Your task to perform on an android device: open app "Speedtest by Ookla" (install if not already installed) Image 0: 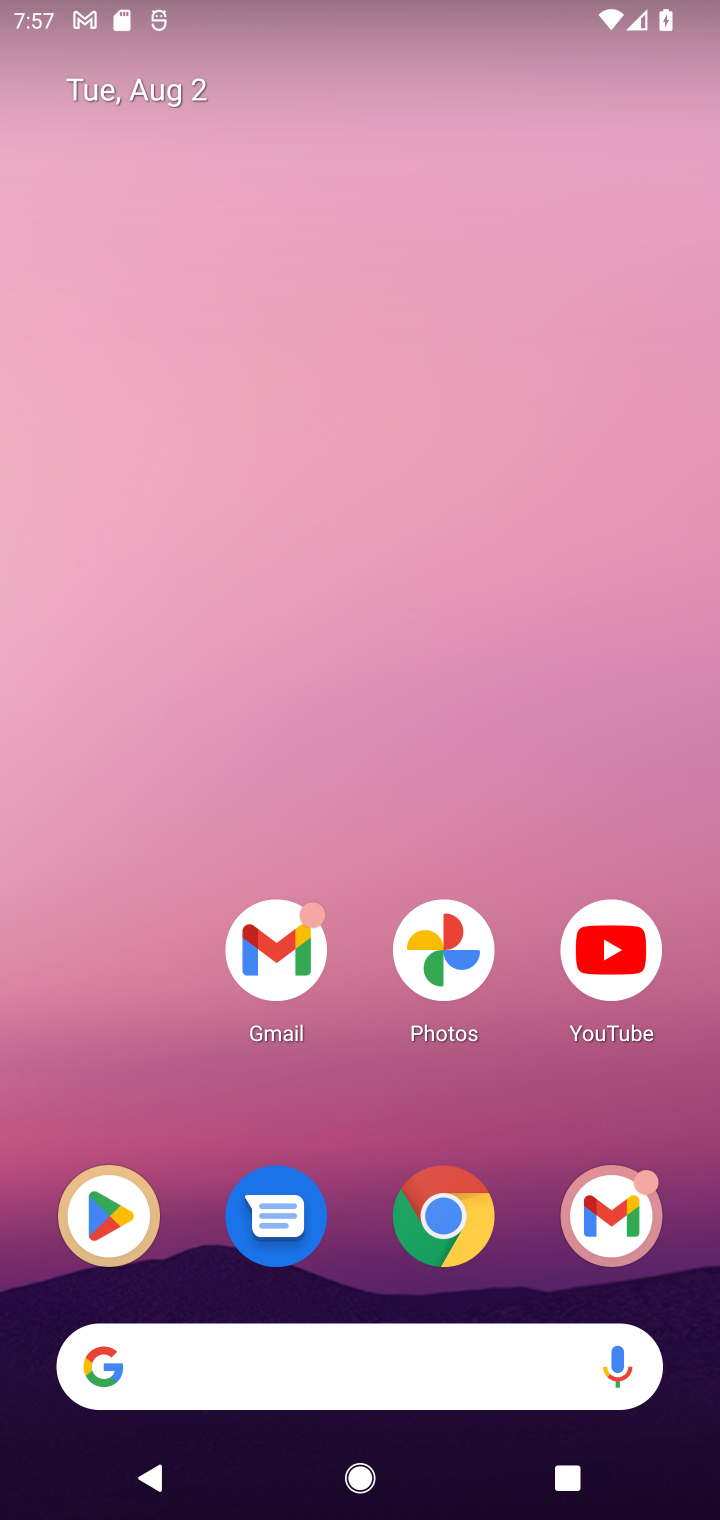
Step 0: press home button
Your task to perform on an android device: open app "Speedtest by Ookla" (install if not already installed) Image 1: 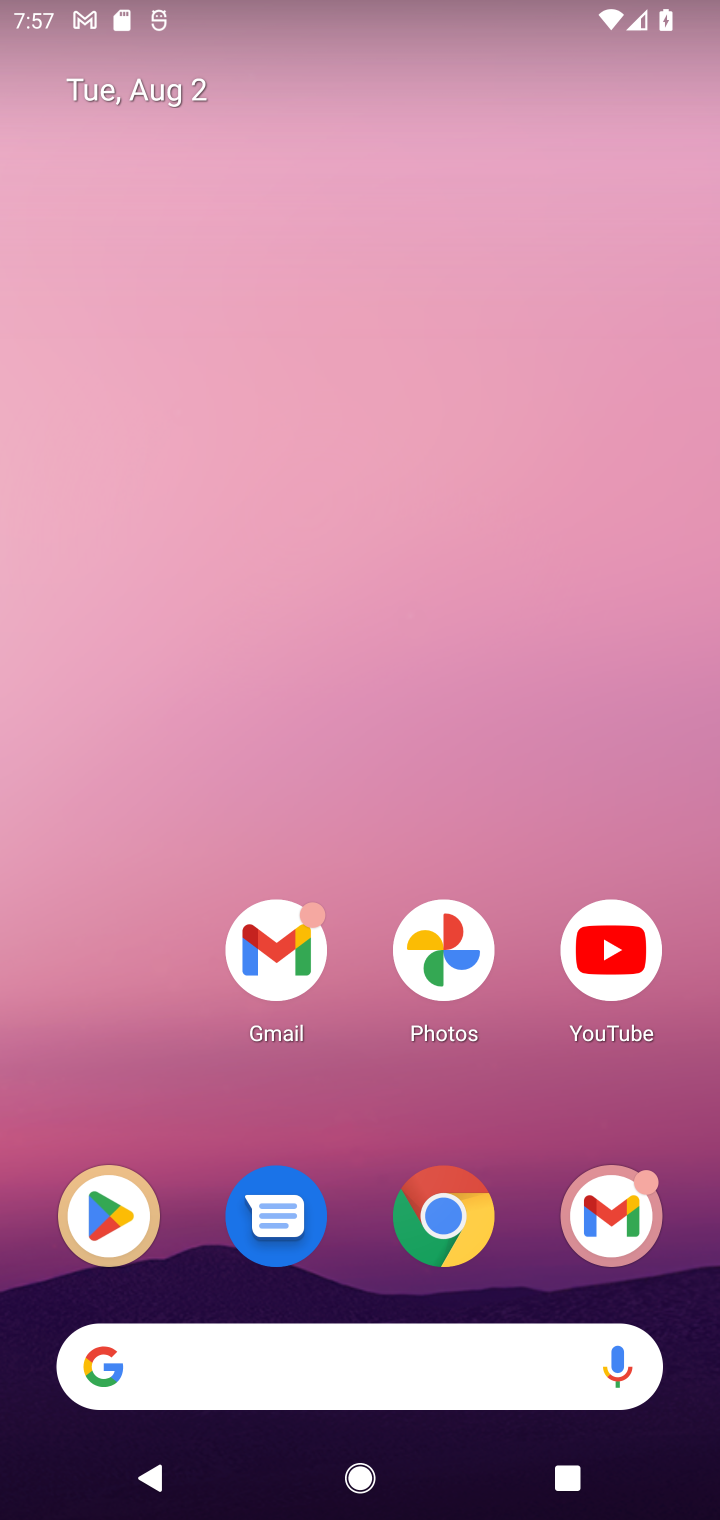
Step 1: click (82, 1222)
Your task to perform on an android device: open app "Speedtest by Ookla" (install if not already installed) Image 2: 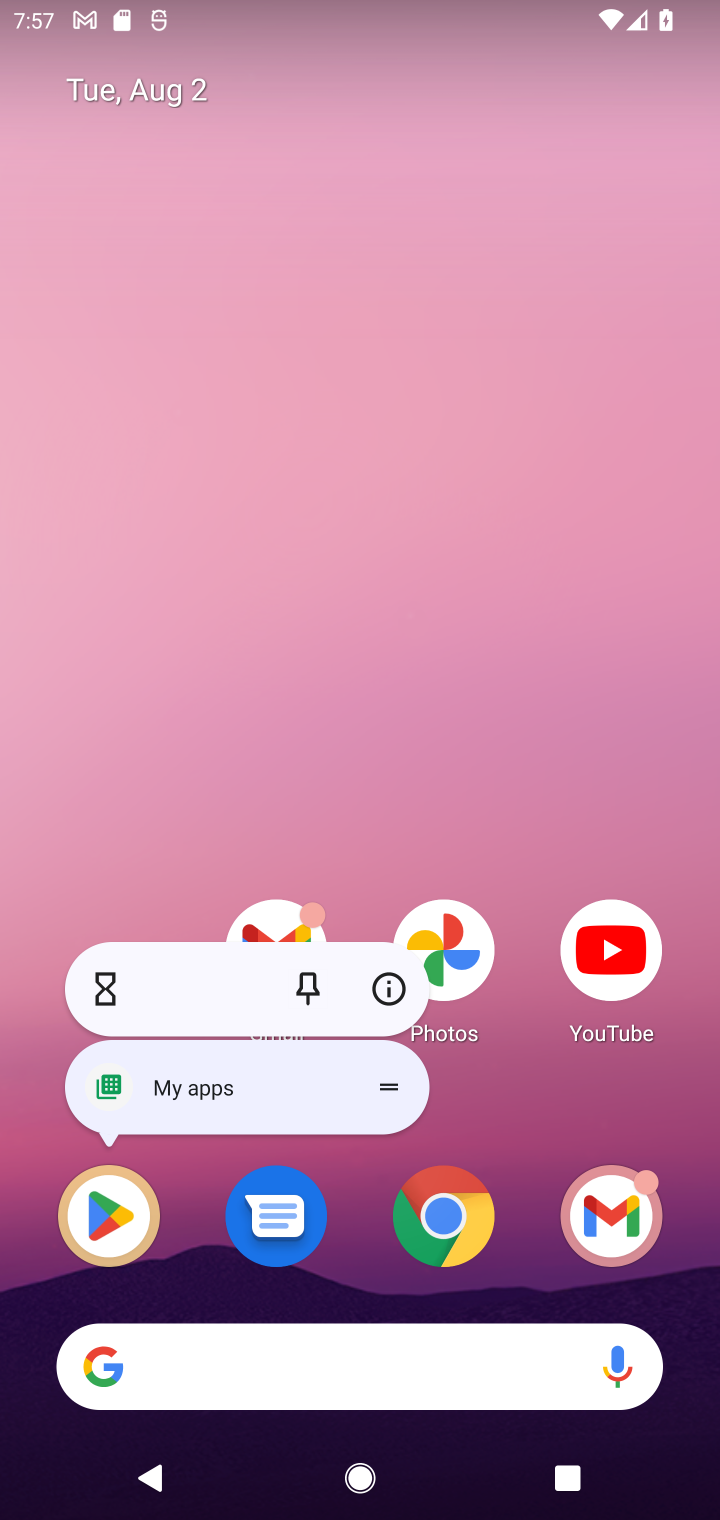
Step 2: click (100, 1217)
Your task to perform on an android device: open app "Speedtest by Ookla" (install if not already installed) Image 3: 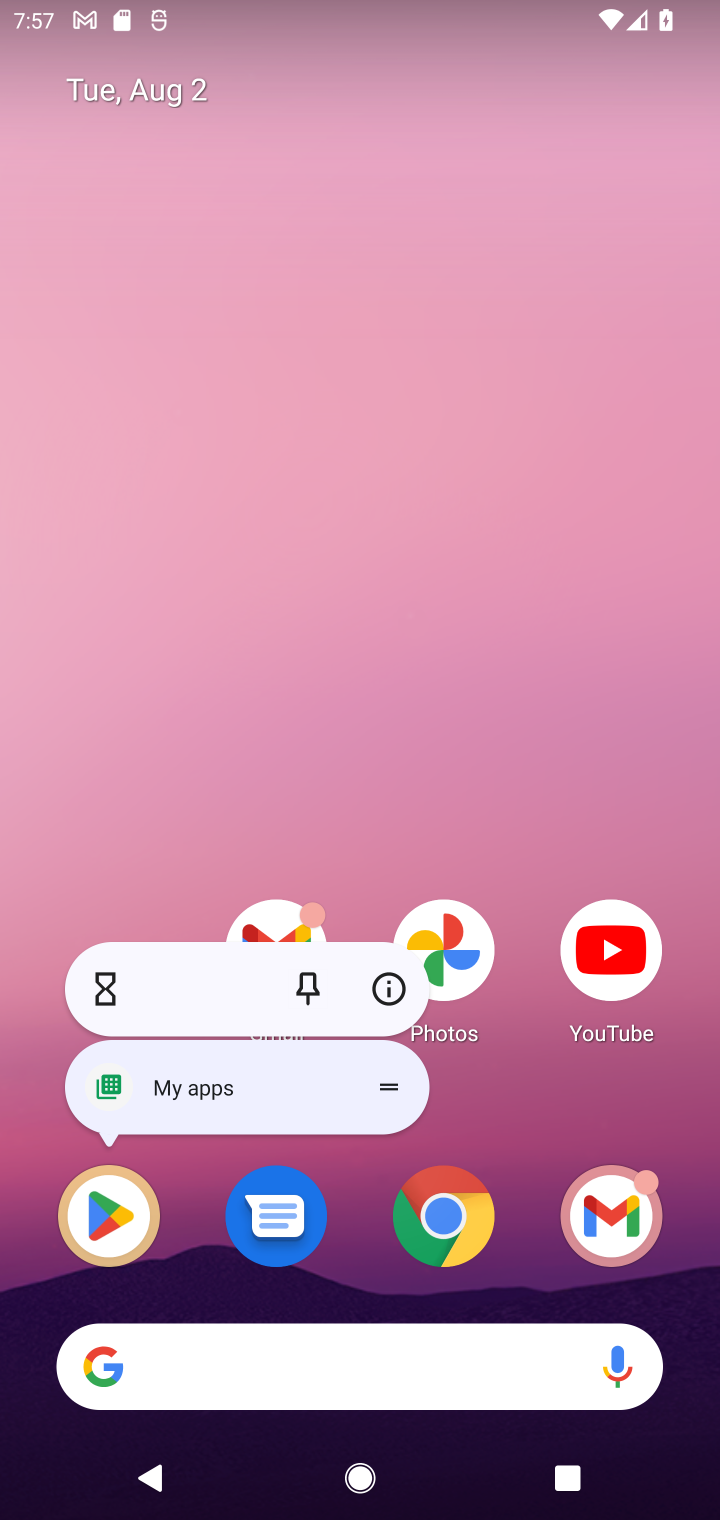
Step 3: click (100, 1219)
Your task to perform on an android device: open app "Speedtest by Ookla" (install if not already installed) Image 4: 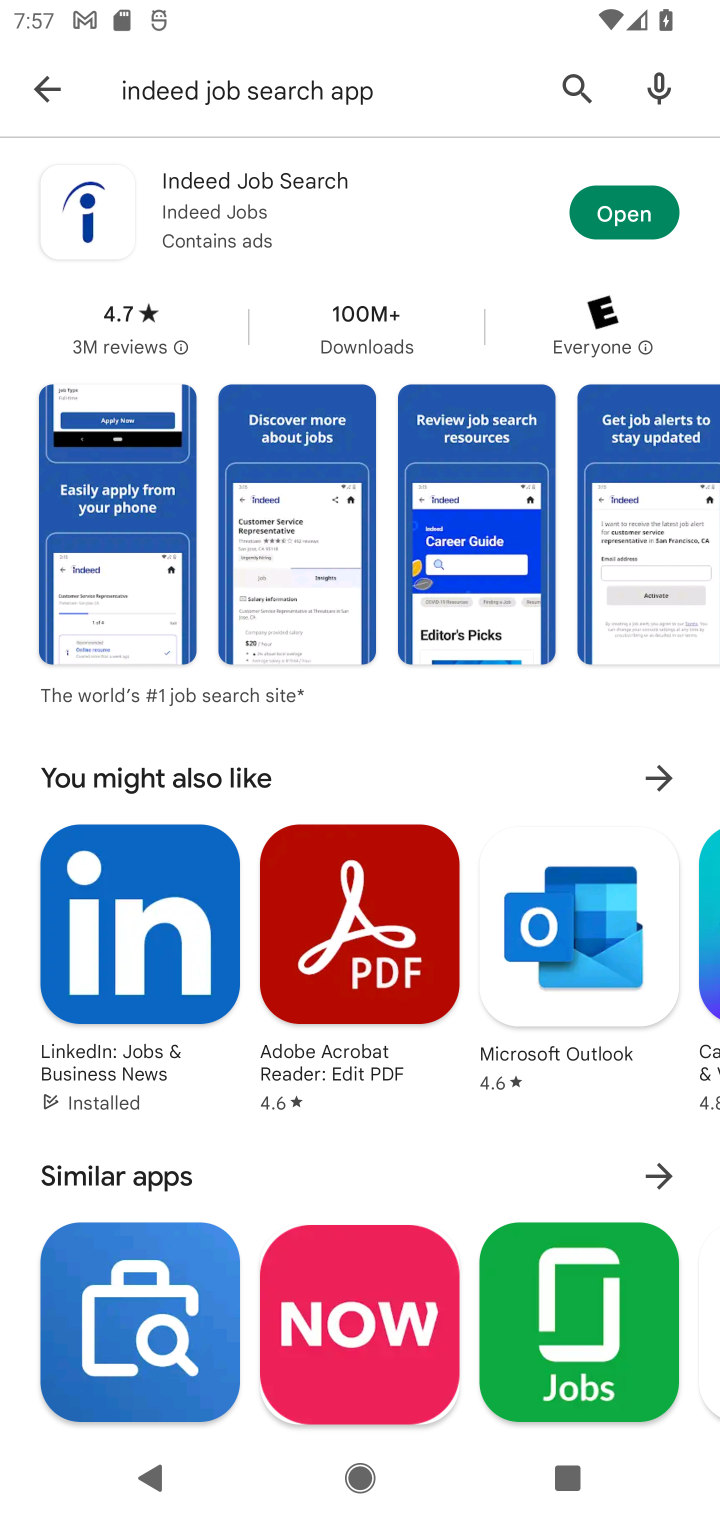
Step 4: click (574, 83)
Your task to perform on an android device: open app "Speedtest by Ookla" (install if not already installed) Image 5: 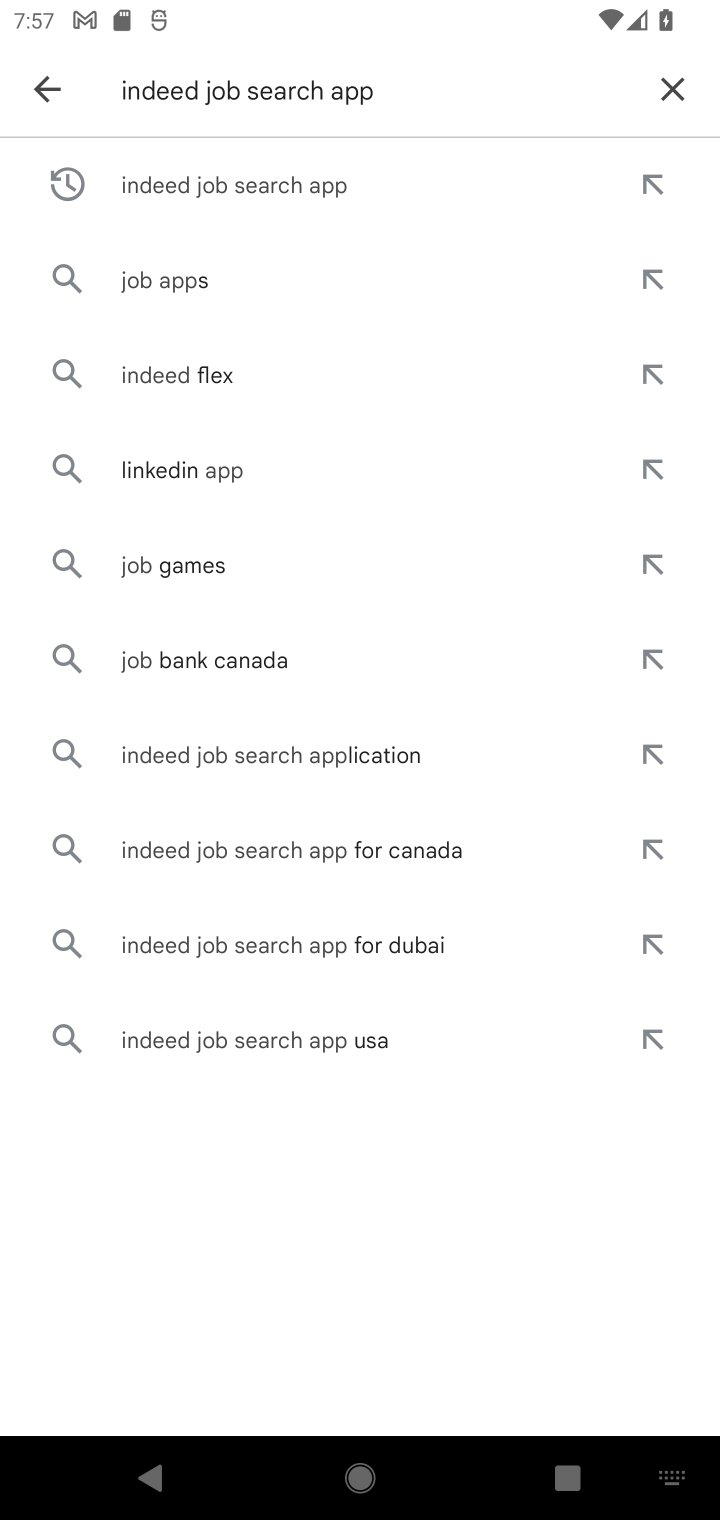
Step 5: click (660, 91)
Your task to perform on an android device: open app "Speedtest by Ookla" (install if not already installed) Image 6: 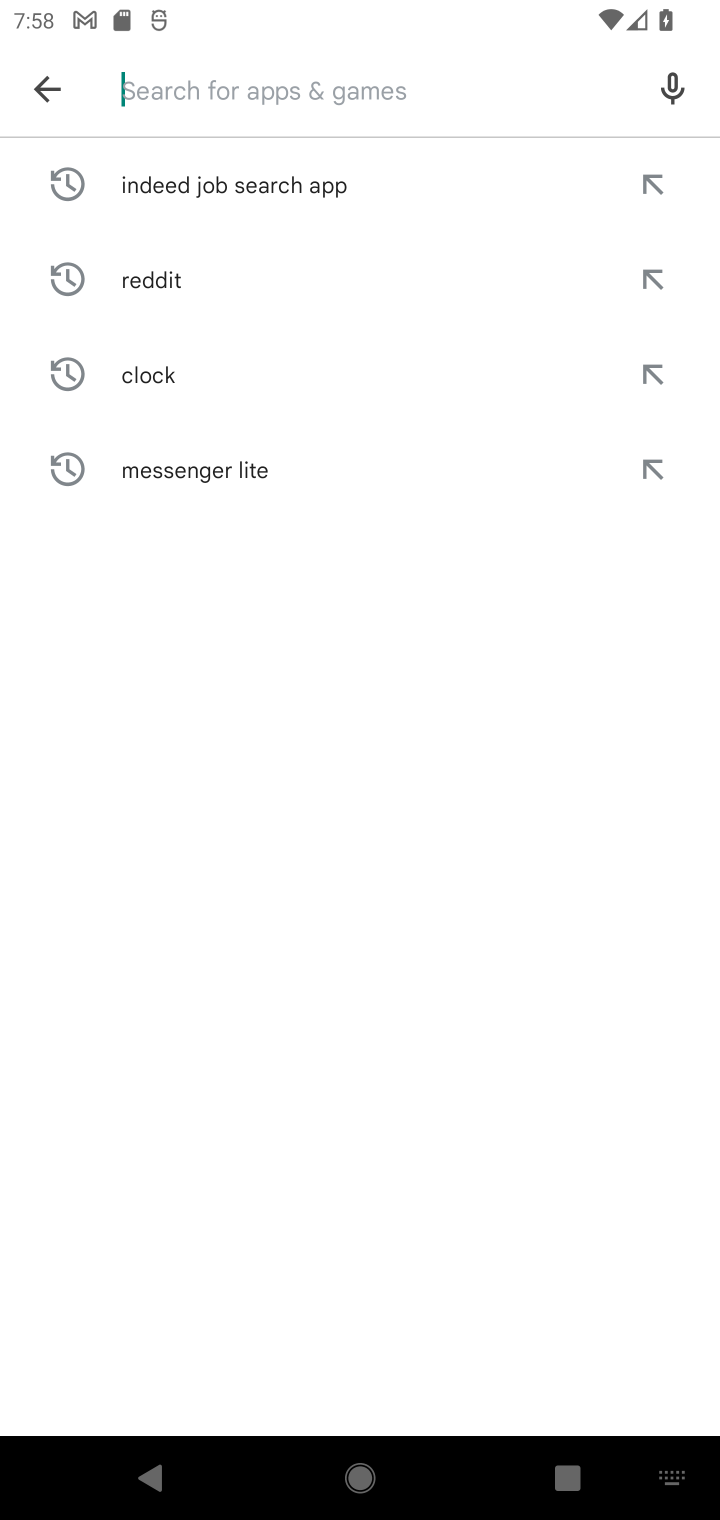
Step 6: type "Speedtest by Ookla"
Your task to perform on an android device: open app "Speedtest by Ookla" (install if not already installed) Image 7: 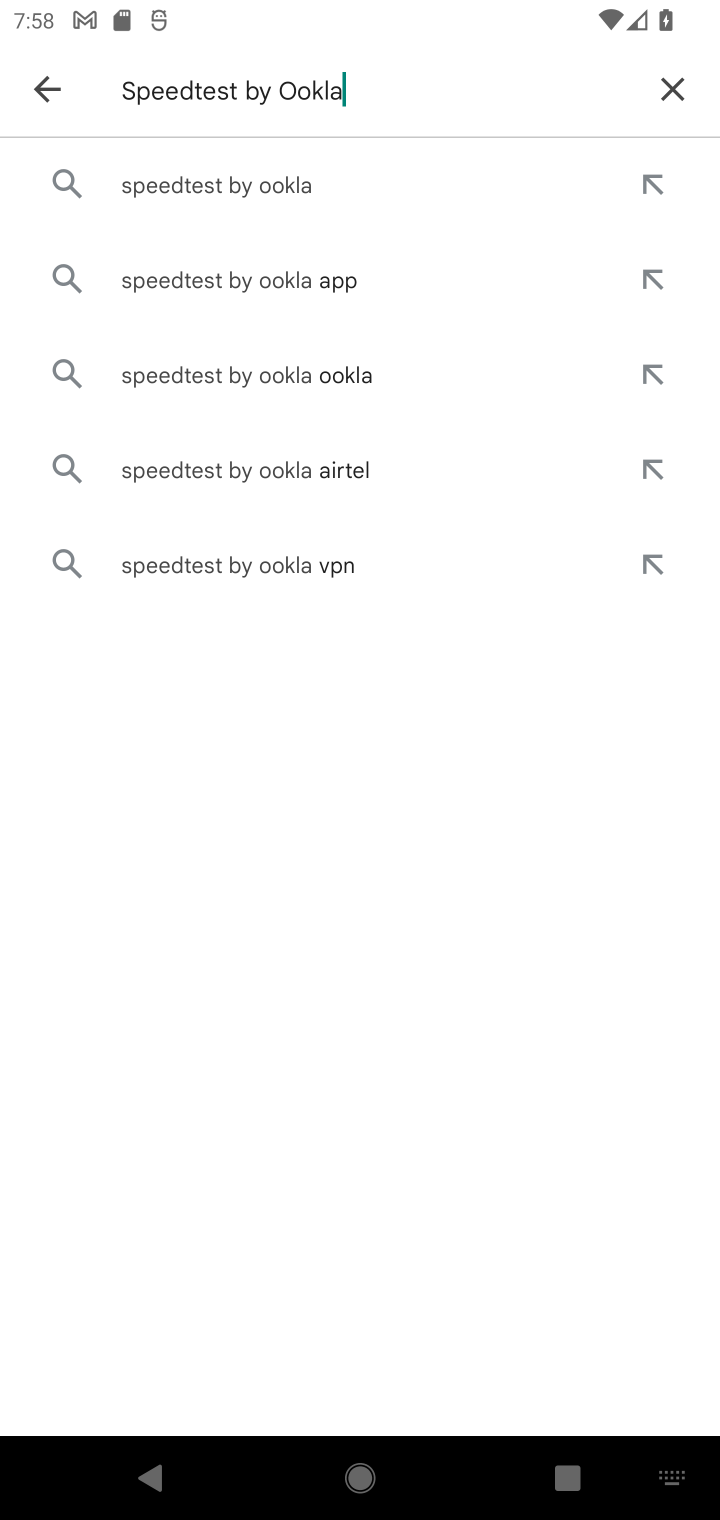
Step 7: click (224, 202)
Your task to perform on an android device: open app "Speedtest by Ookla" (install if not already installed) Image 8: 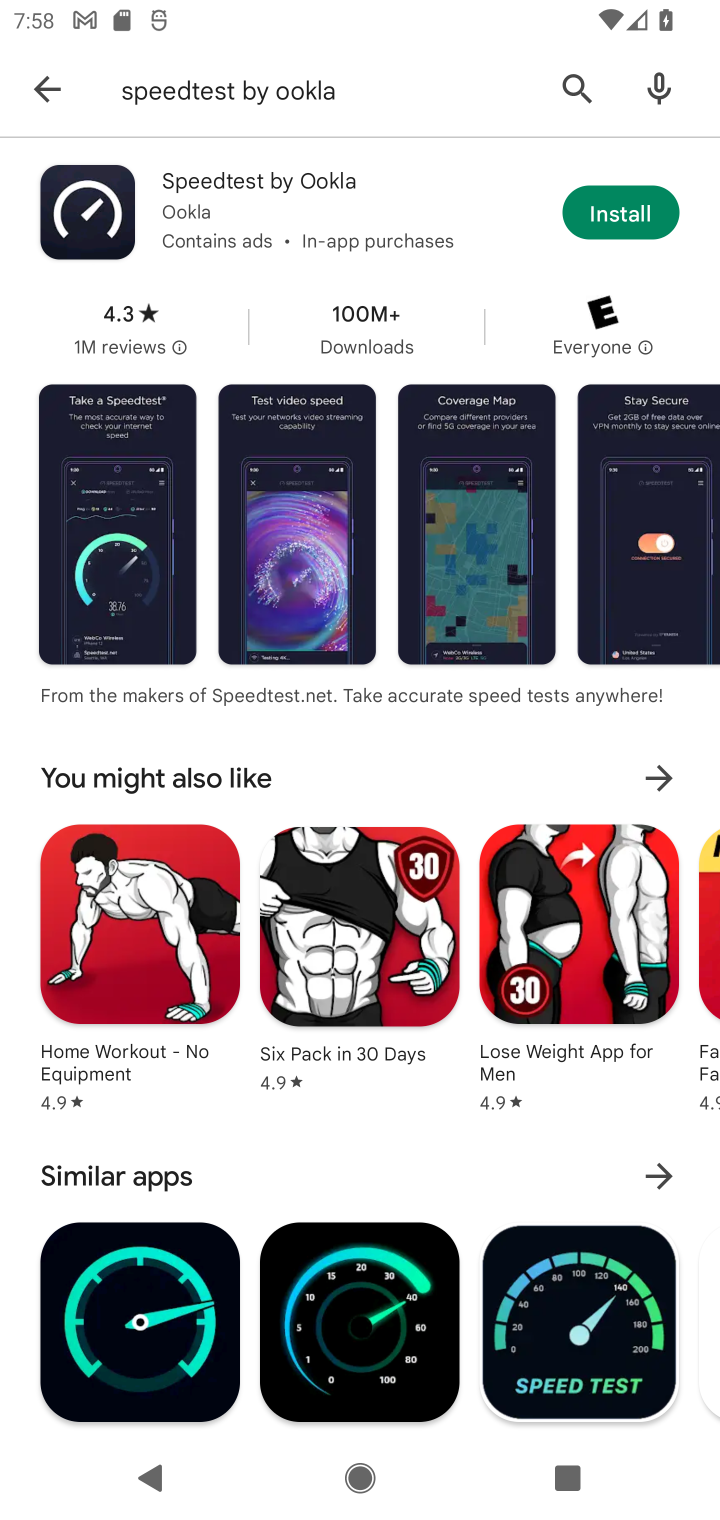
Step 8: click (641, 214)
Your task to perform on an android device: open app "Speedtest by Ookla" (install if not already installed) Image 9: 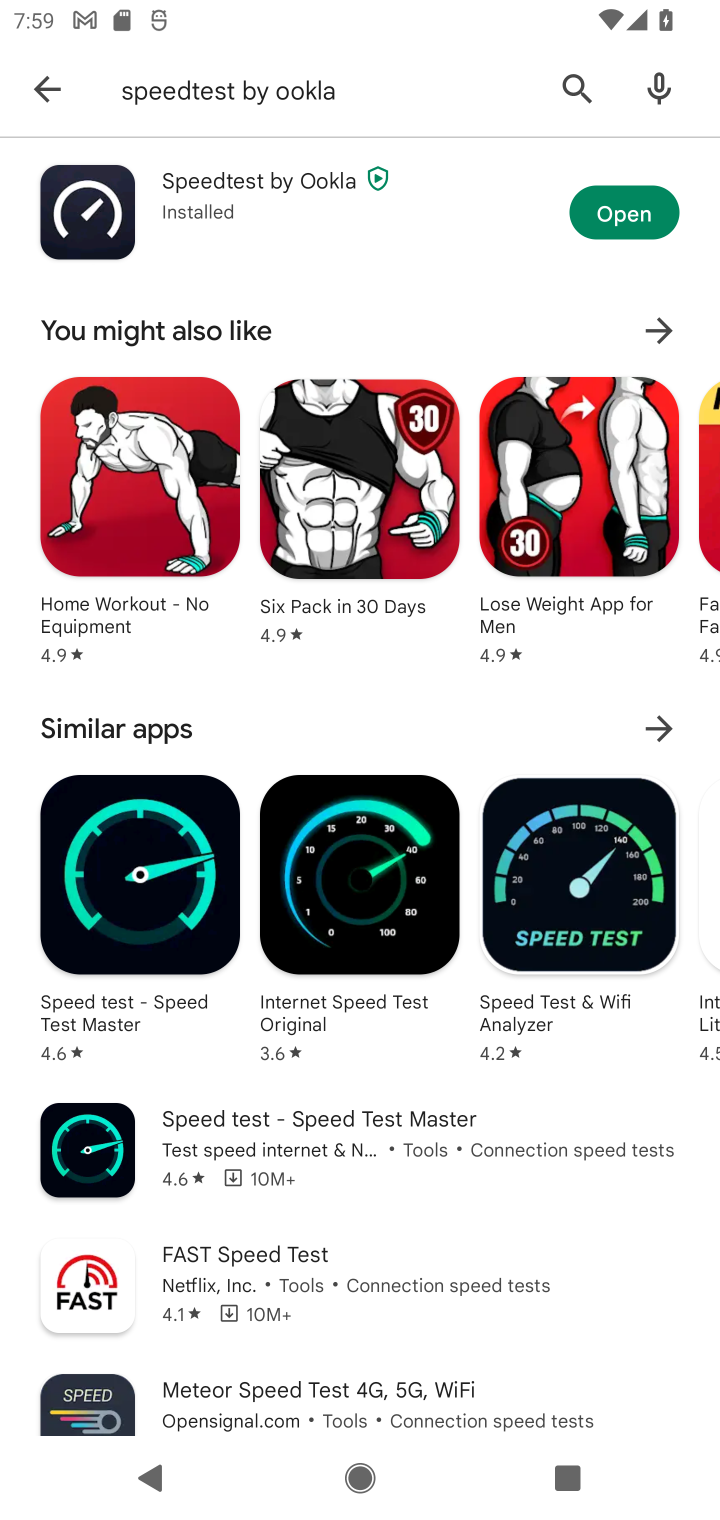
Step 9: click (619, 198)
Your task to perform on an android device: open app "Speedtest by Ookla" (install if not already installed) Image 10: 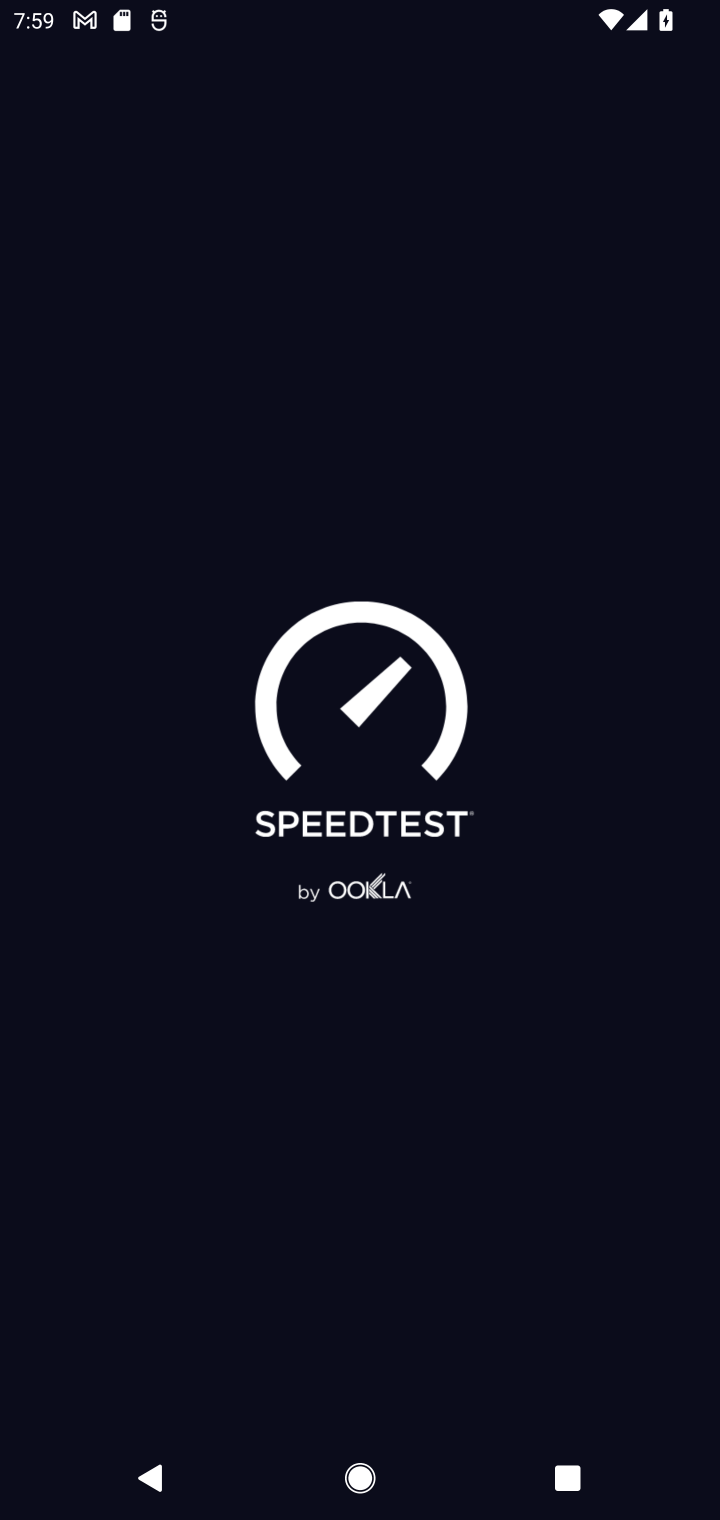
Step 10: task complete